Your task to perform on an android device: What is the news today? Image 0: 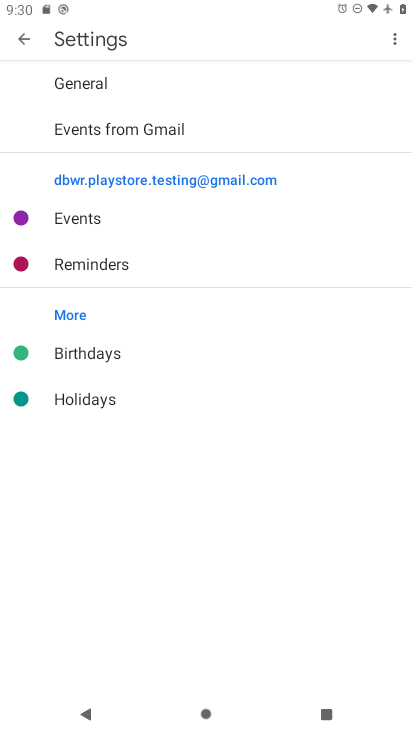
Step 0: press home button
Your task to perform on an android device: What is the news today? Image 1: 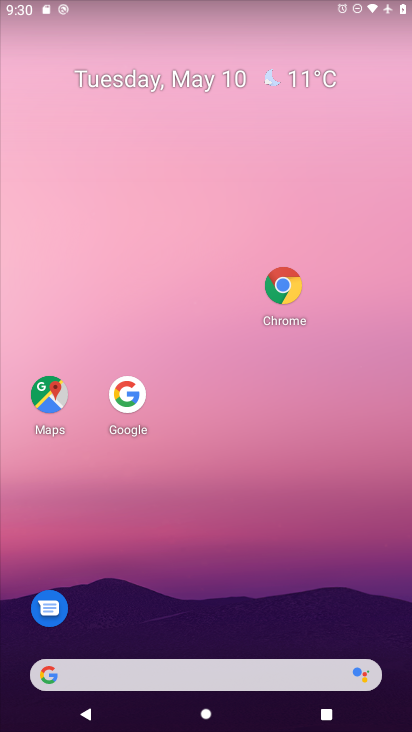
Step 1: click (48, 680)
Your task to perform on an android device: What is the news today? Image 2: 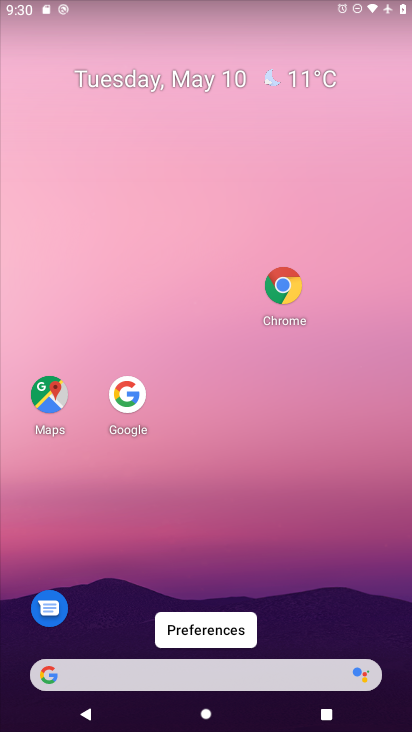
Step 2: click (49, 675)
Your task to perform on an android device: What is the news today? Image 3: 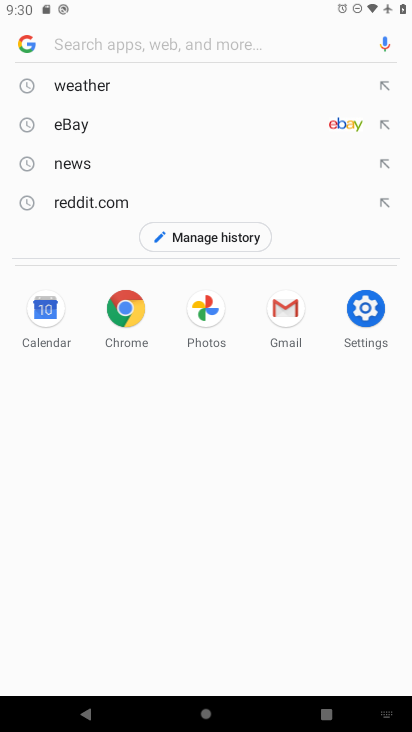
Step 3: click (92, 167)
Your task to perform on an android device: What is the news today? Image 4: 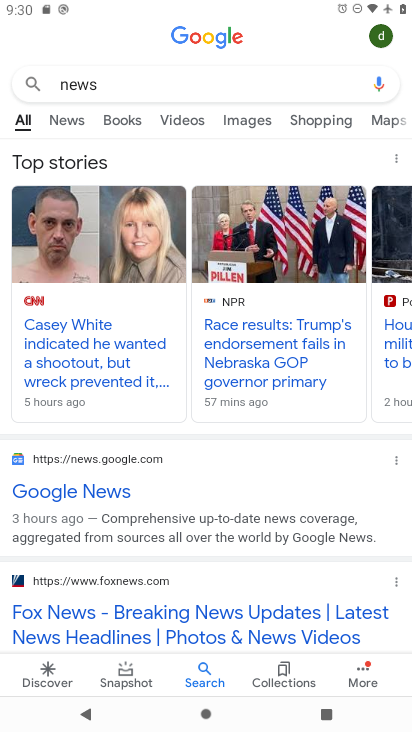
Step 4: click (70, 120)
Your task to perform on an android device: What is the news today? Image 5: 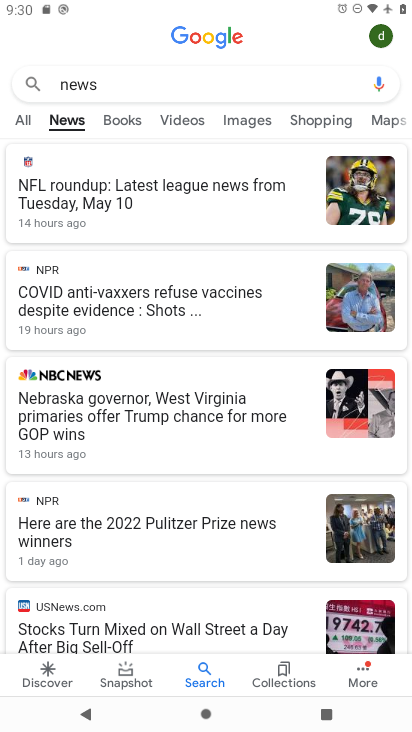
Step 5: task complete